Your task to perform on an android device: Open settings on Google Maps Image 0: 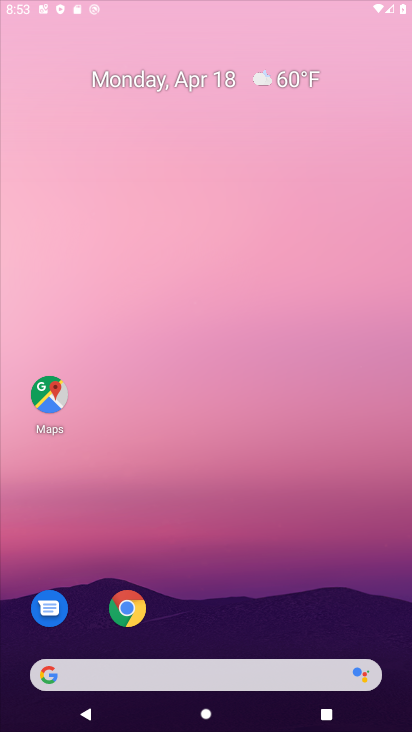
Step 0: click (229, 116)
Your task to perform on an android device: Open settings on Google Maps Image 1: 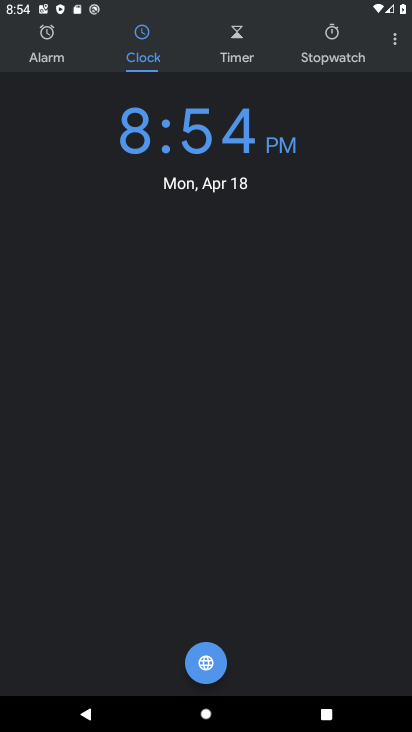
Step 1: press home button
Your task to perform on an android device: Open settings on Google Maps Image 2: 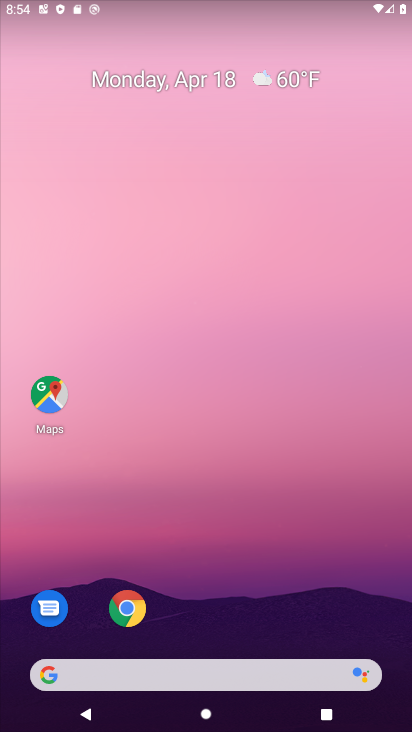
Step 2: drag from (172, 622) to (243, 153)
Your task to perform on an android device: Open settings on Google Maps Image 3: 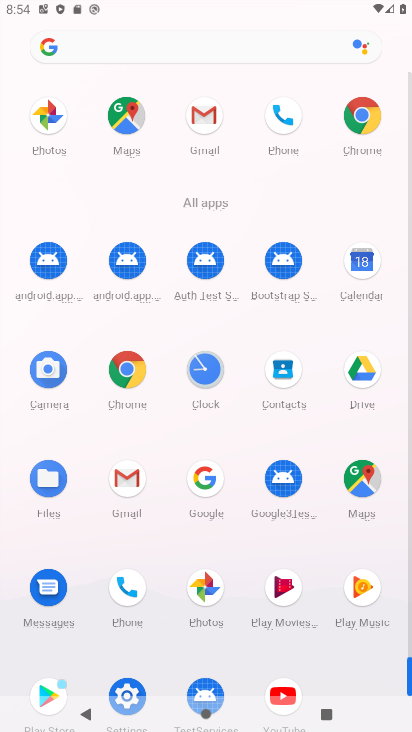
Step 3: drag from (226, 483) to (244, 269)
Your task to perform on an android device: Open settings on Google Maps Image 4: 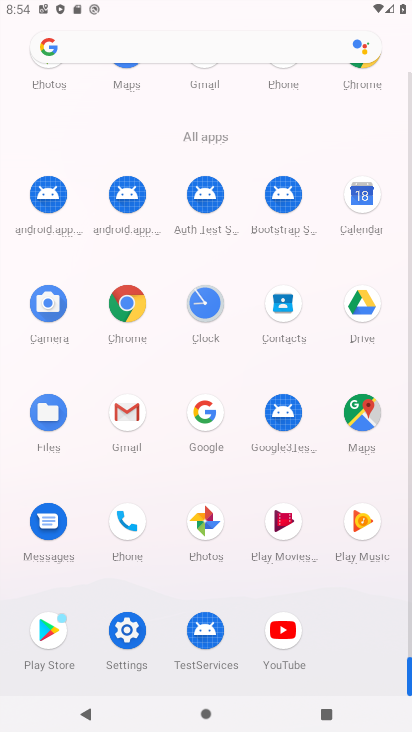
Step 4: click (199, 409)
Your task to perform on an android device: Open settings on Google Maps Image 5: 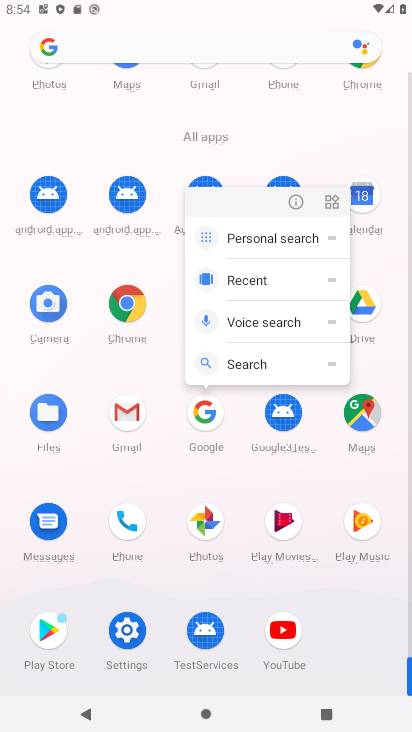
Step 5: click (292, 203)
Your task to perform on an android device: Open settings on Google Maps Image 6: 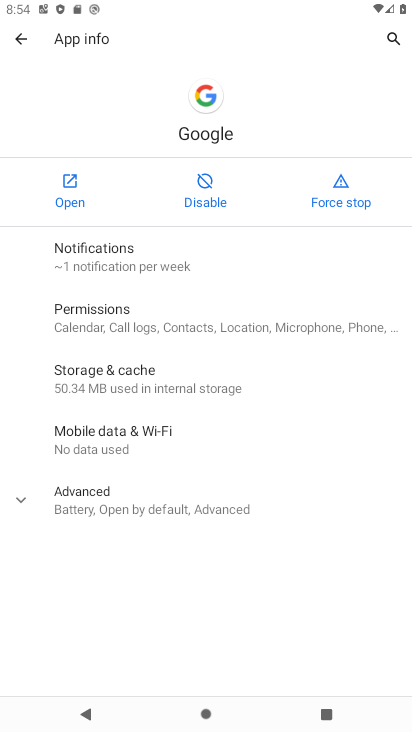
Step 6: click (15, 42)
Your task to perform on an android device: Open settings on Google Maps Image 7: 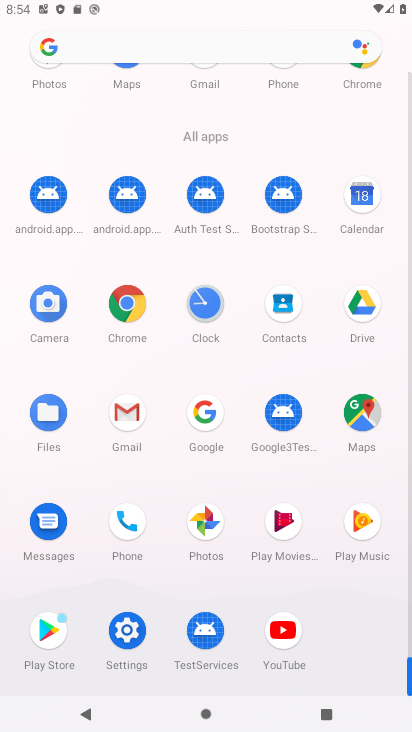
Step 7: click (353, 410)
Your task to perform on an android device: Open settings on Google Maps Image 8: 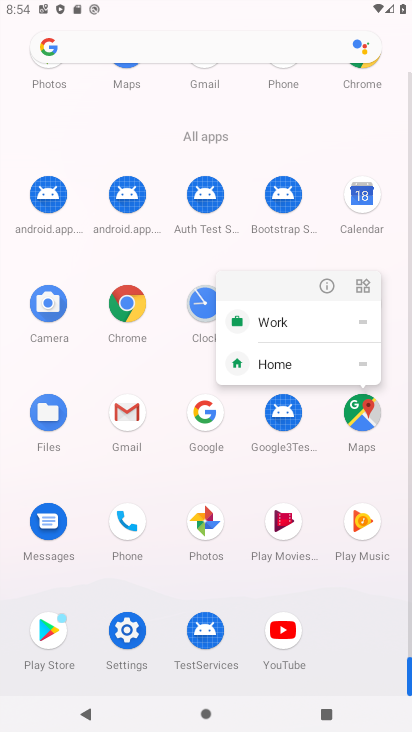
Step 8: click (323, 282)
Your task to perform on an android device: Open settings on Google Maps Image 9: 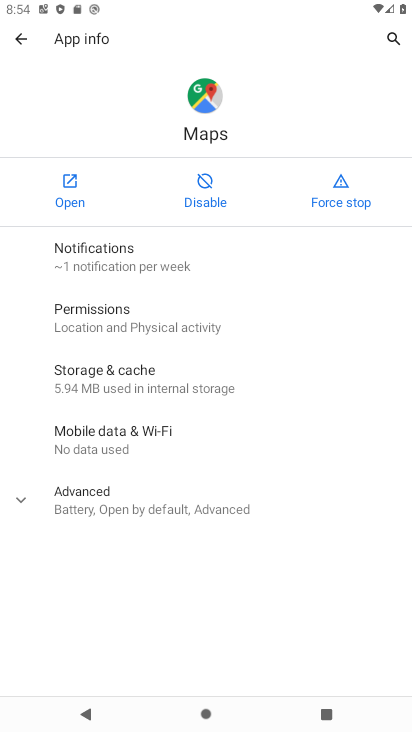
Step 9: click (69, 170)
Your task to perform on an android device: Open settings on Google Maps Image 10: 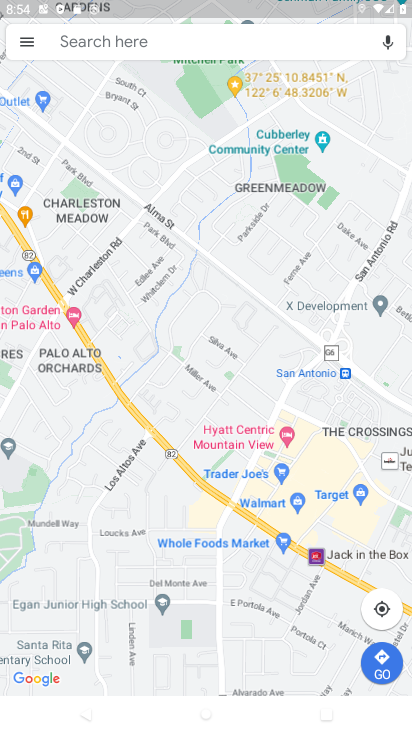
Step 10: click (23, 47)
Your task to perform on an android device: Open settings on Google Maps Image 11: 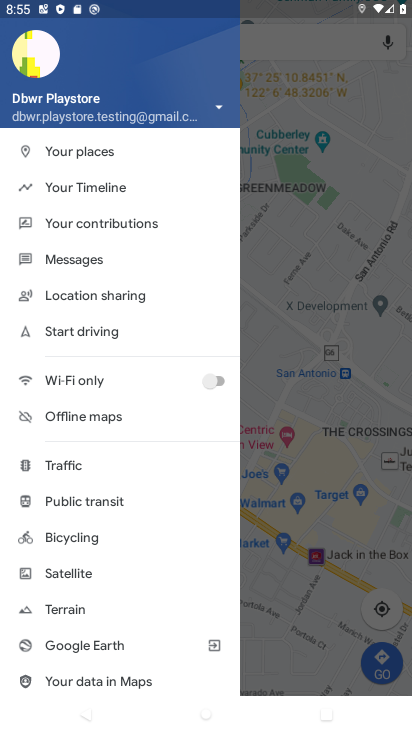
Step 11: drag from (113, 610) to (145, 162)
Your task to perform on an android device: Open settings on Google Maps Image 12: 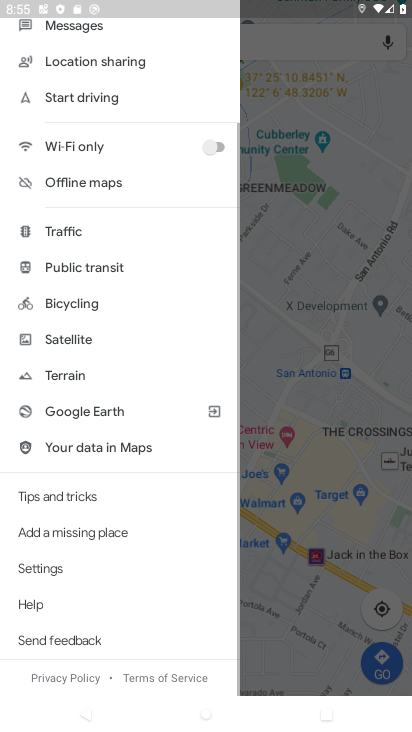
Step 12: click (71, 576)
Your task to perform on an android device: Open settings on Google Maps Image 13: 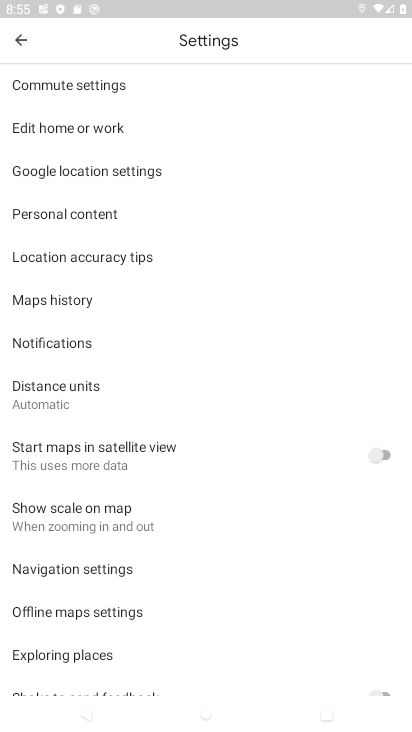
Step 13: task complete